Your task to perform on an android device: change the clock display to show seconds Image 0: 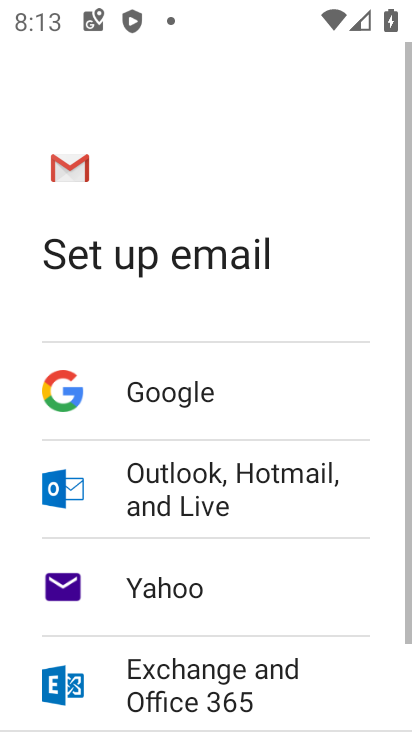
Step 0: press back button
Your task to perform on an android device: change the clock display to show seconds Image 1: 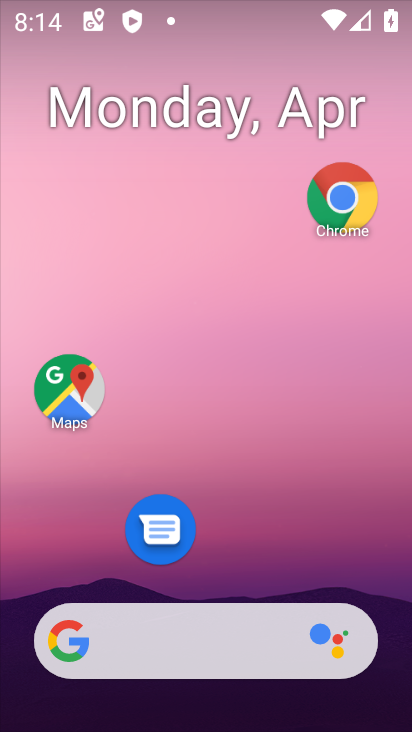
Step 1: drag from (247, 555) to (312, 45)
Your task to perform on an android device: change the clock display to show seconds Image 2: 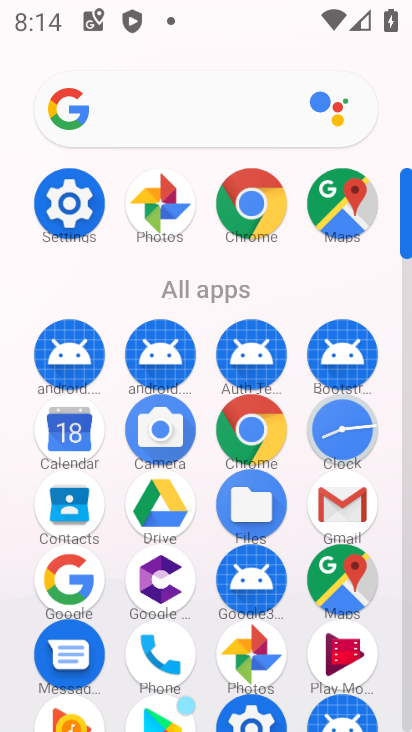
Step 2: click (342, 418)
Your task to perform on an android device: change the clock display to show seconds Image 3: 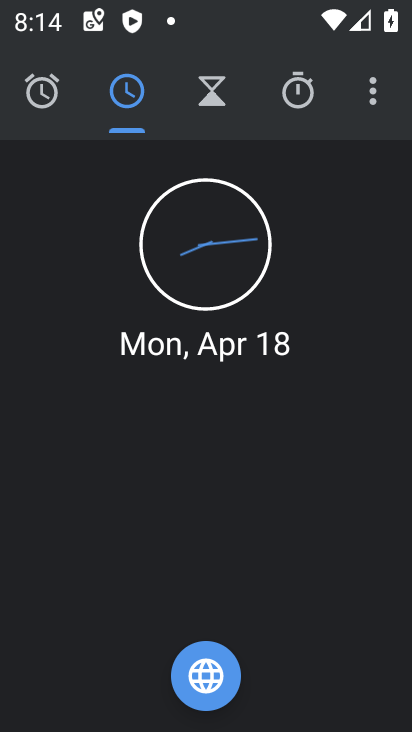
Step 3: click (372, 92)
Your task to perform on an android device: change the clock display to show seconds Image 4: 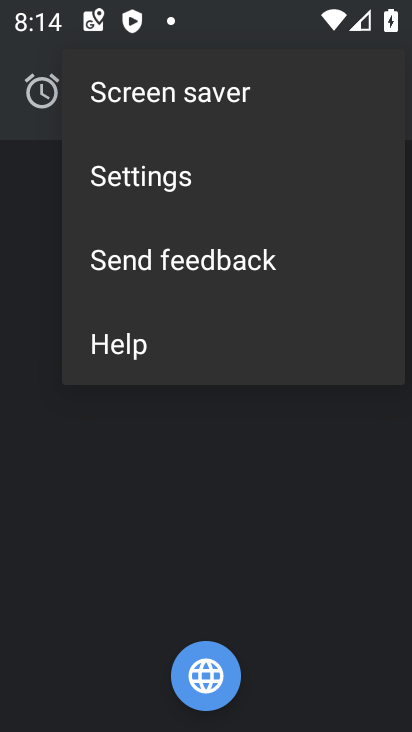
Step 4: click (146, 184)
Your task to perform on an android device: change the clock display to show seconds Image 5: 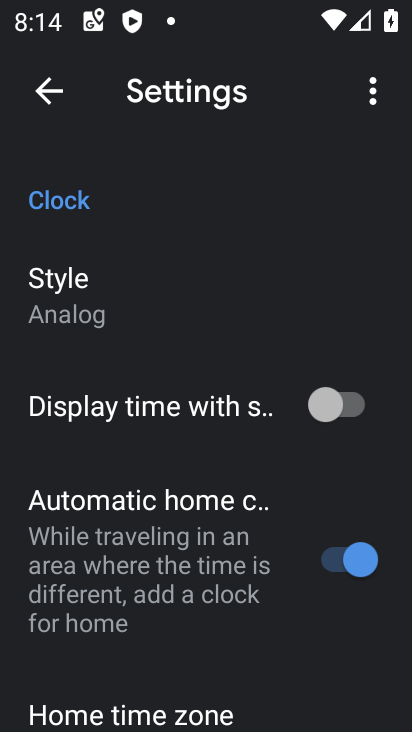
Step 5: drag from (179, 579) to (273, 105)
Your task to perform on an android device: change the clock display to show seconds Image 6: 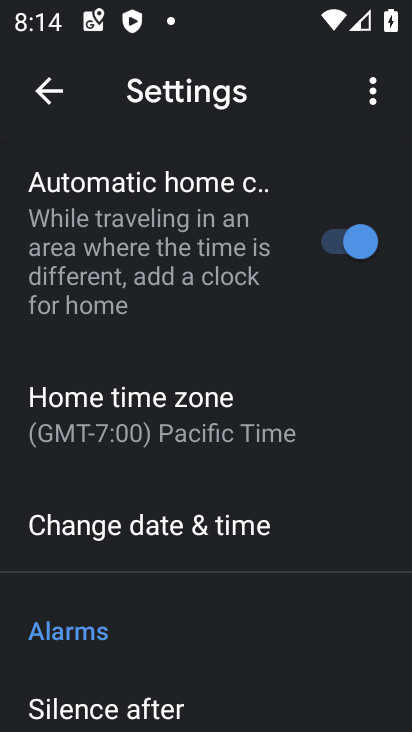
Step 6: drag from (257, 201) to (214, 727)
Your task to perform on an android device: change the clock display to show seconds Image 7: 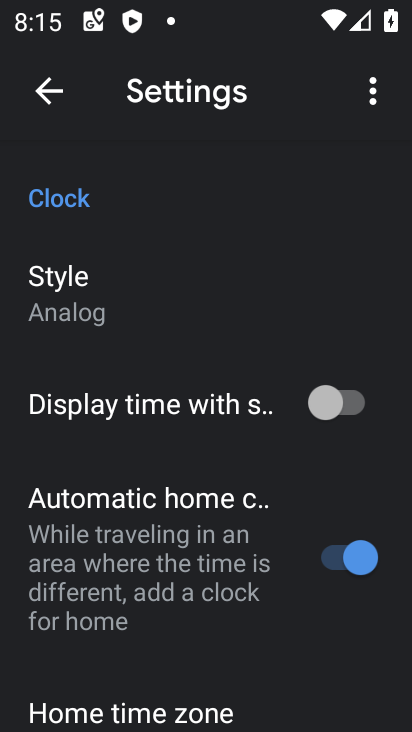
Step 7: click (105, 279)
Your task to perform on an android device: change the clock display to show seconds Image 8: 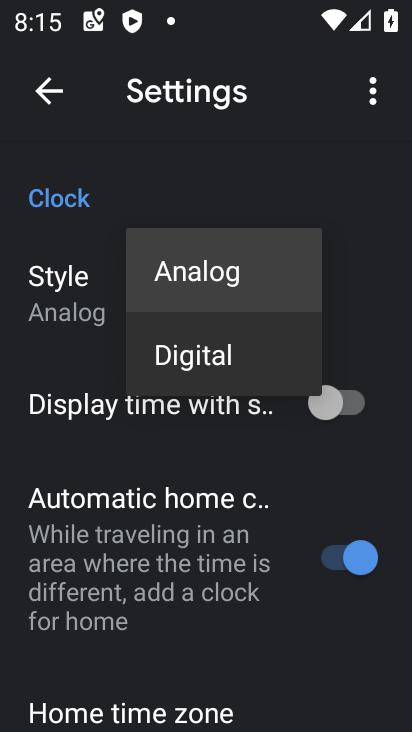
Step 8: click (203, 354)
Your task to perform on an android device: change the clock display to show seconds Image 9: 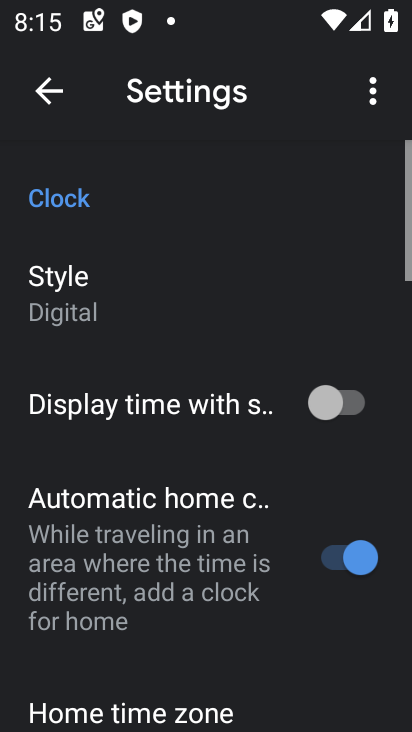
Step 9: click (308, 407)
Your task to perform on an android device: change the clock display to show seconds Image 10: 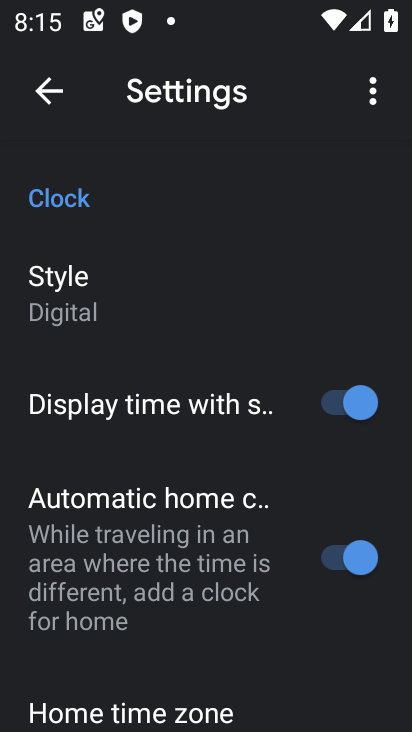
Step 10: task complete